Your task to perform on an android device: Open Reddit.com Image 0: 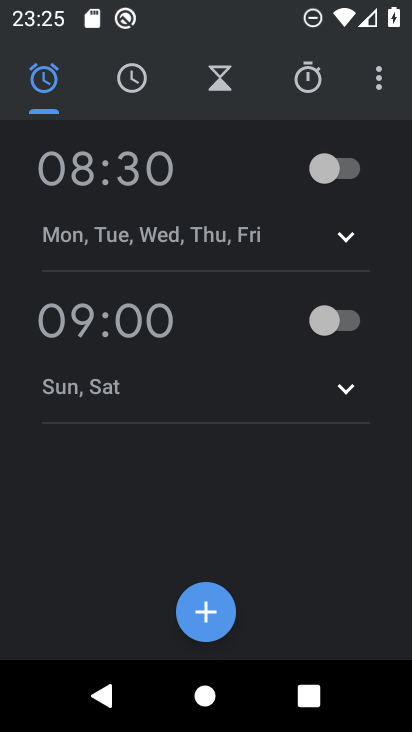
Step 0: press home button
Your task to perform on an android device: Open Reddit.com Image 1: 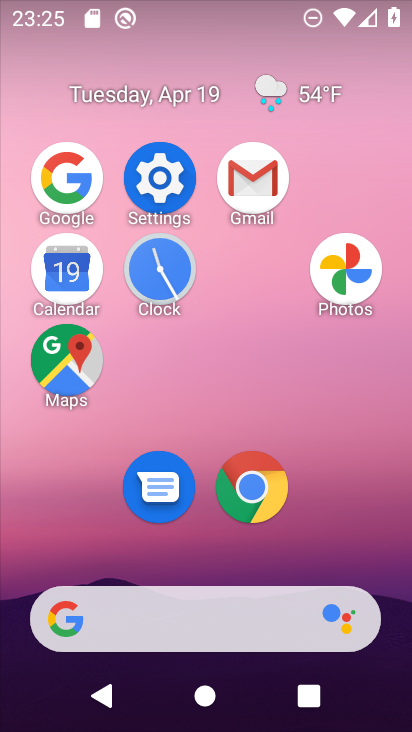
Step 1: click (256, 480)
Your task to perform on an android device: Open Reddit.com Image 2: 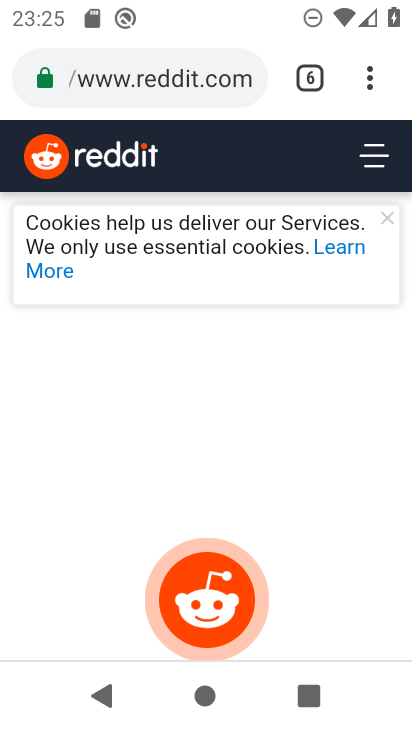
Step 2: click (256, 480)
Your task to perform on an android device: Open Reddit.com Image 3: 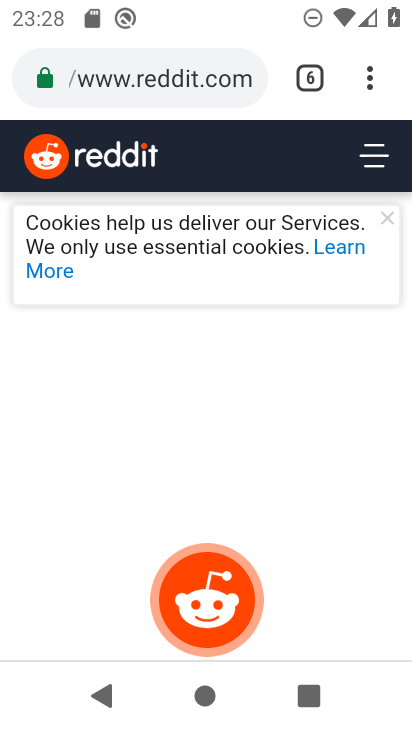
Step 3: task complete